Your task to perform on an android device: turn on javascript in the chrome app Image 0: 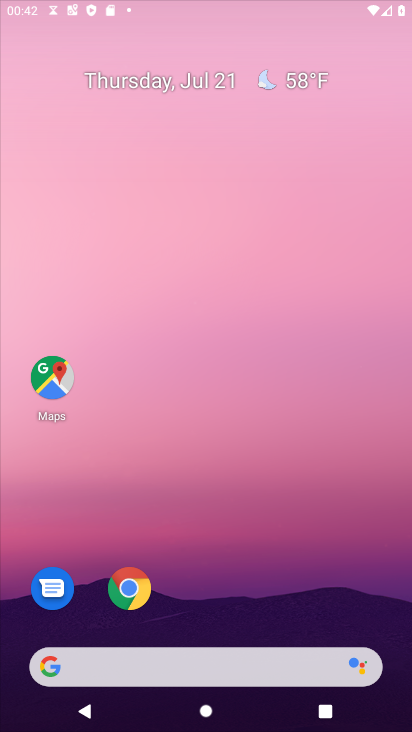
Step 0: drag from (222, 627) to (204, 16)
Your task to perform on an android device: turn on javascript in the chrome app Image 1: 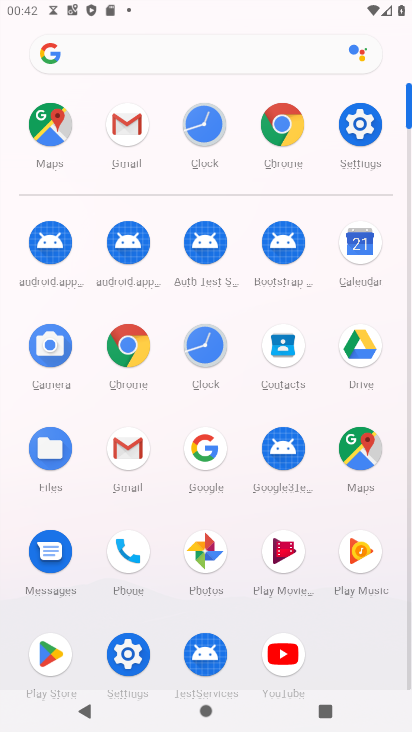
Step 1: click (122, 340)
Your task to perform on an android device: turn on javascript in the chrome app Image 2: 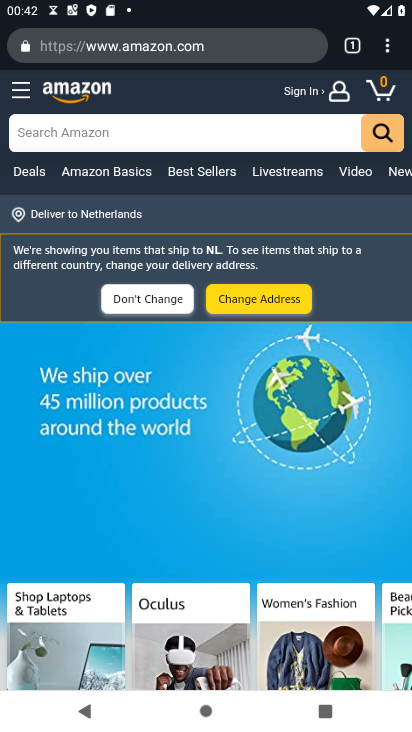
Step 2: click (390, 41)
Your task to perform on an android device: turn on javascript in the chrome app Image 3: 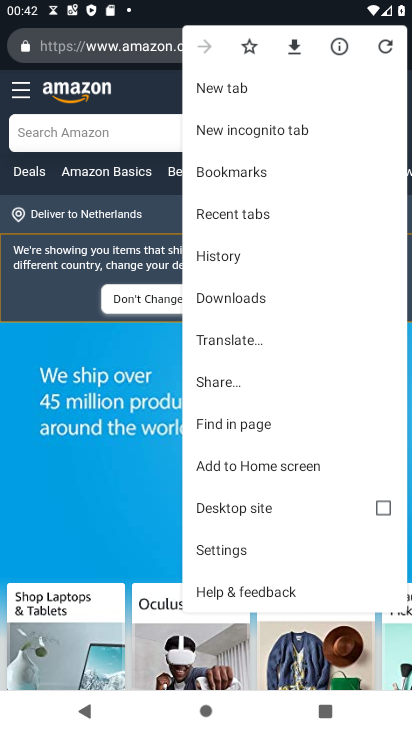
Step 3: click (237, 556)
Your task to perform on an android device: turn on javascript in the chrome app Image 4: 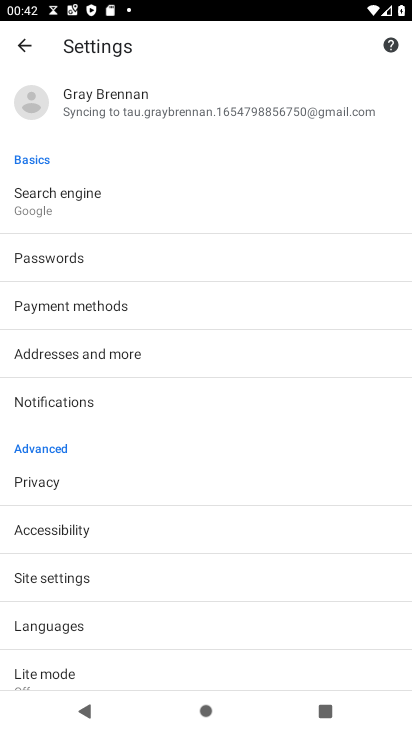
Step 4: click (78, 578)
Your task to perform on an android device: turn on javascript in the chrome app Image 5: 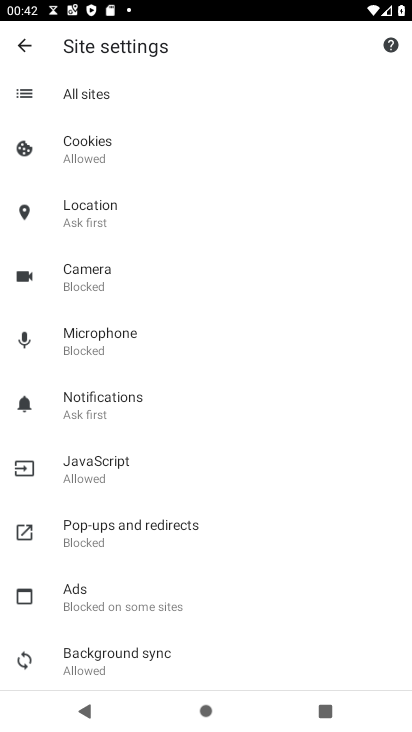
Step 5: click (105, 471)
Your task to perform on an android device: turn on javascript in the chrome app Image 6: 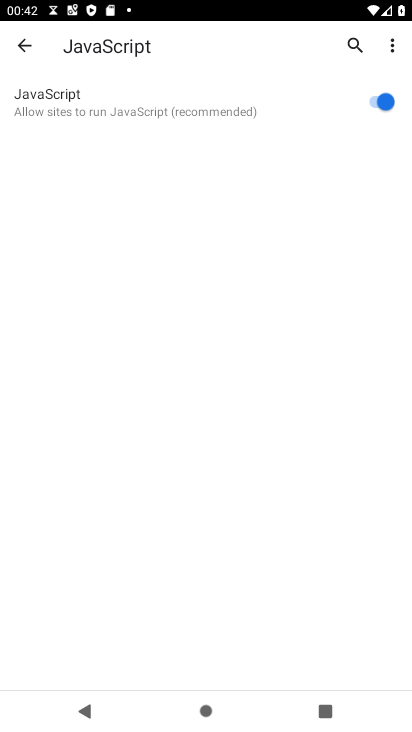
Step 6: task complete